Your task to perform on an android device: Do I have any events today? Image 0: 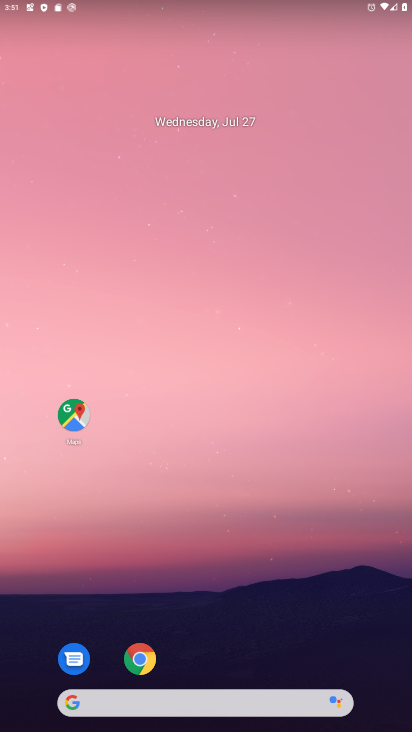
Step 0: drag from (242, 618) to (208, 2)
Your task to perform on an android device: Do I have any events today? Image 1: 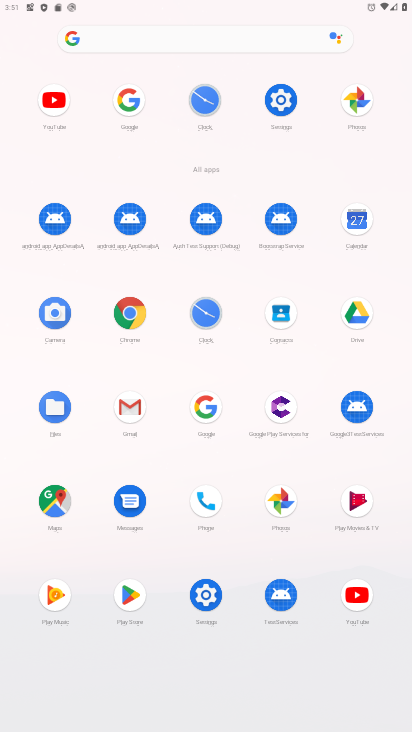
Step 1: click (349, 222)
Your task to perform on an android device: Do I have any events today? Image 2: 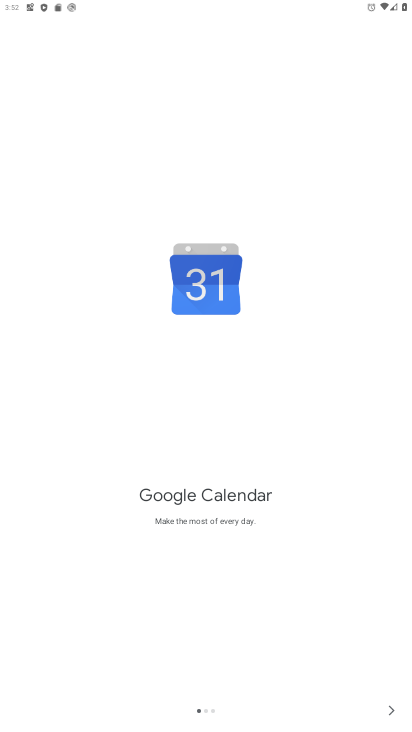
Step 2: click (385, 706)
Your task to perform on an android device: Do I have any events today? Image 3: 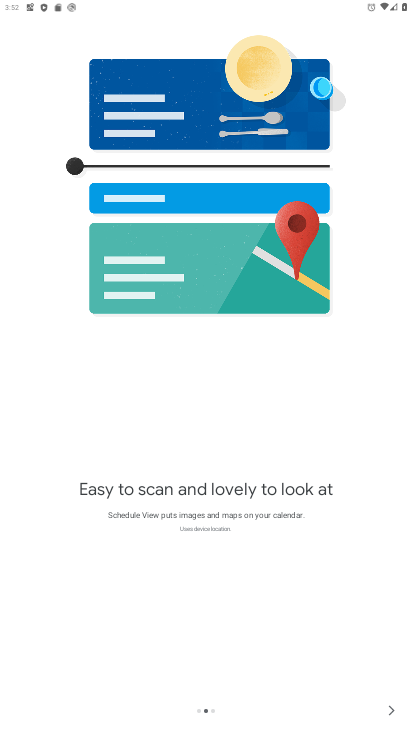
Step 3: click (385, 706)
Your task to perform on an android device: Do I have any events today? Image 4: 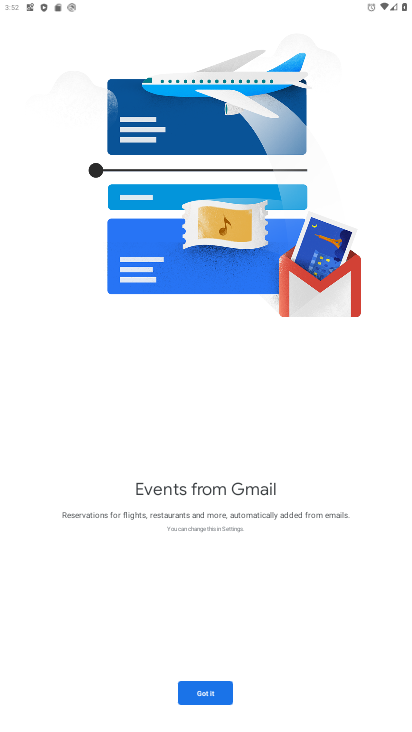
Step 4: click (198, 696)
Your task to perform on an android device: Do I have any events today? Image 5: 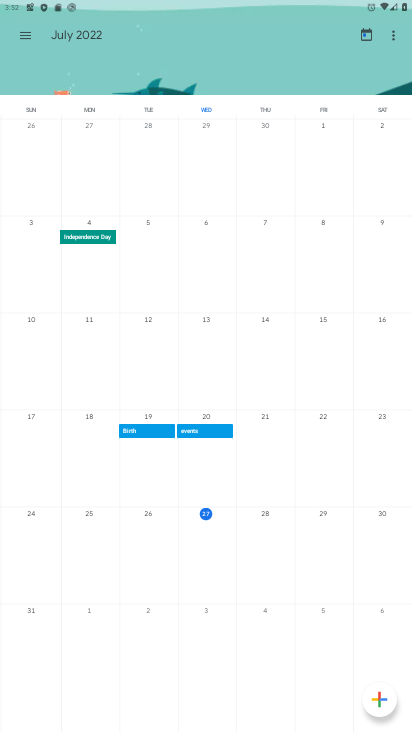
Step 5: click (198, 520)
Your task to perform on an android device: Do I have any events today? Image 6: 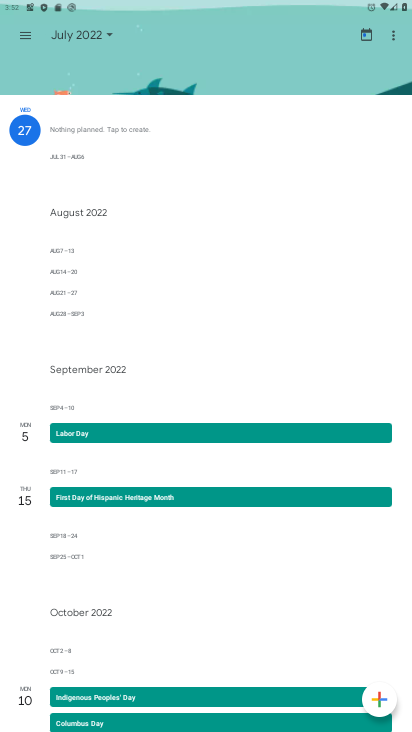
Step 6: task complete